Your task to perform on an android device: move an email to a new category in the gmail app Image 0: 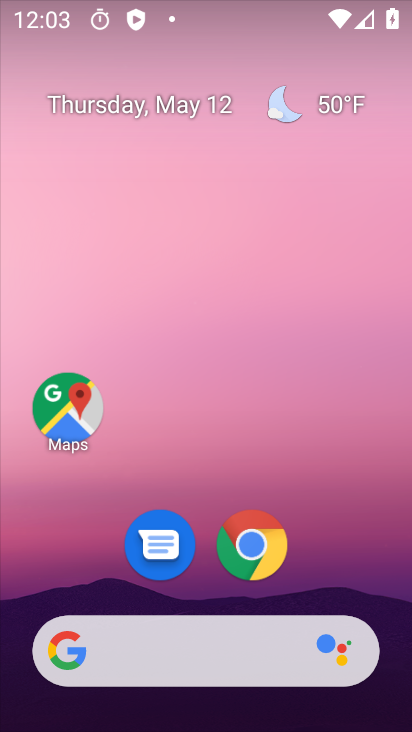
Step 0: drag from (175, 650) to (138, 57)
Your task to perform on an android device: move an email to a new category in the gmail app Image 1: 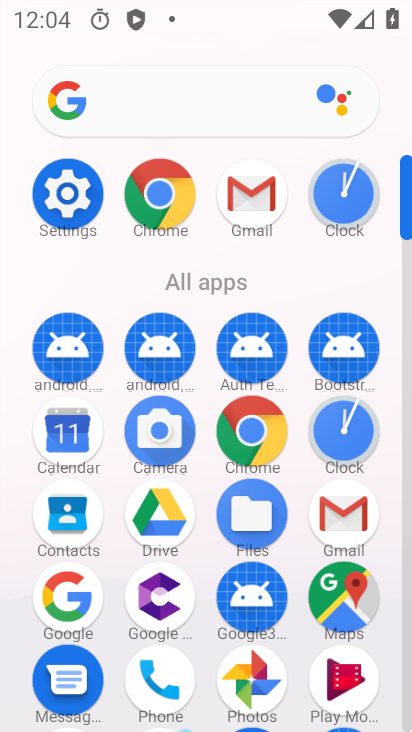
Step 1: click (344, 506)
Your task to perform on an android device: move an email to a new category in the gmail app Image 2: 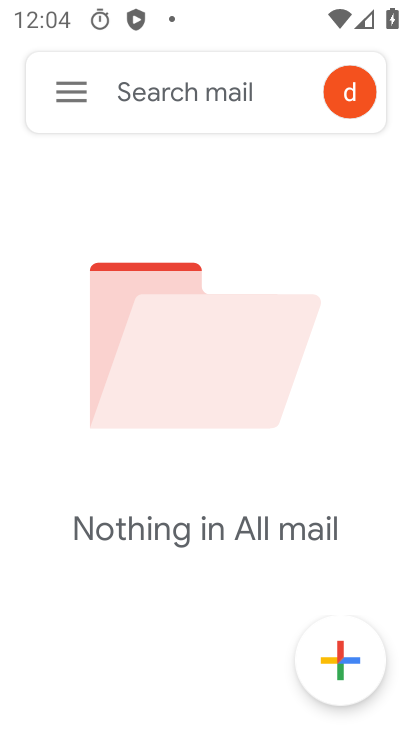
Step 2: click (81, 90)
Your task to perform on an android device: move an email to a new category in the gmail app Image 3: 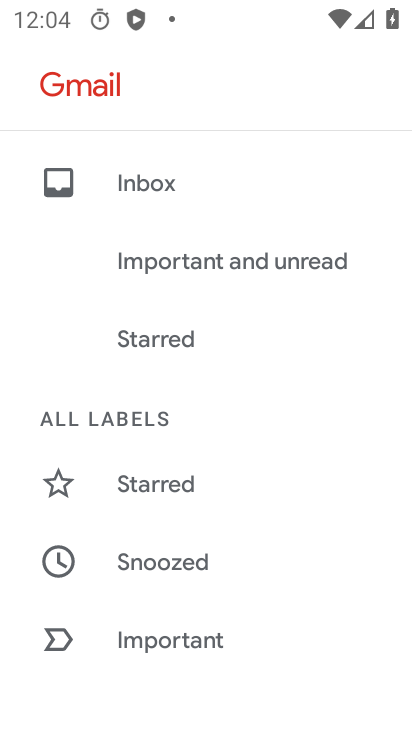
Step 3: drag from (205, 568) to (233, 31)
Your task to perform on an android device: move an email to a new category in the gmail app Image 4: 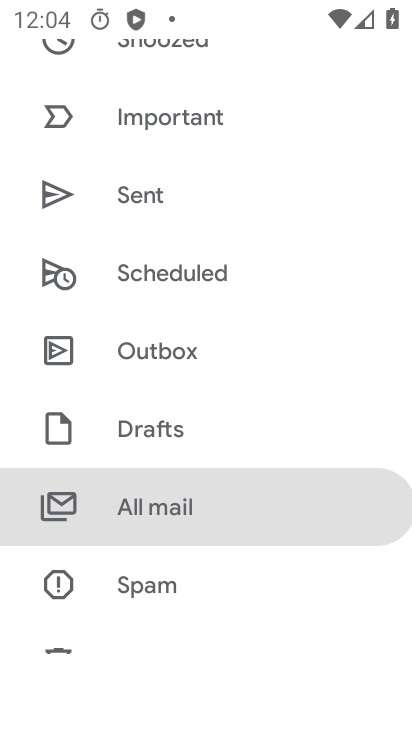
Step 4: click (209, 505)
Your task to perform on an android device: move an email to a new category in the gmail app Image 5: 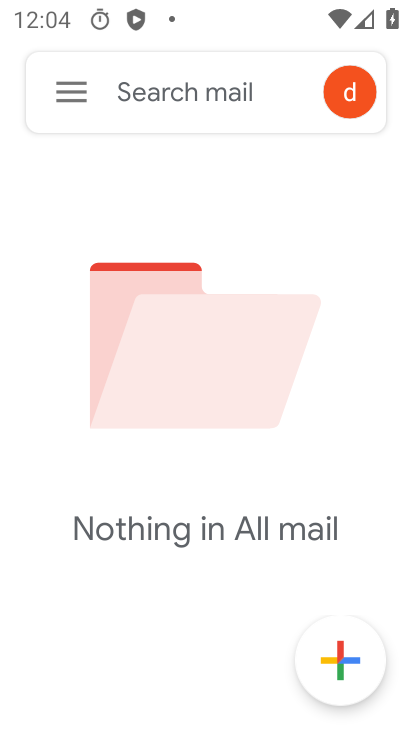
Step 5: task complete